Your task to perform on an android device: Open Android settings Image 0: 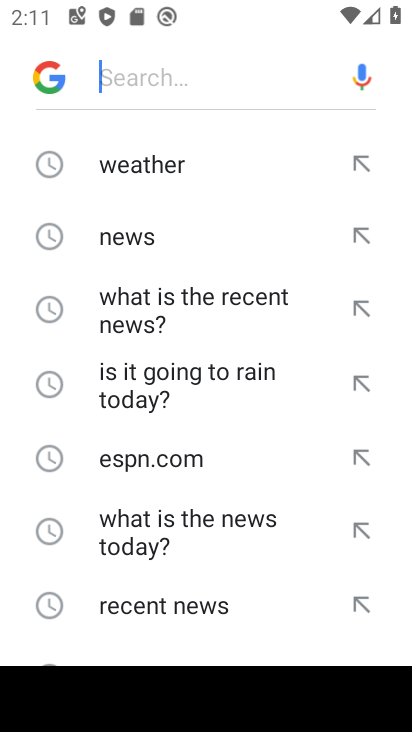
Step 0: press home button
Your task to perform on an android device: Open Android settings Image 1: 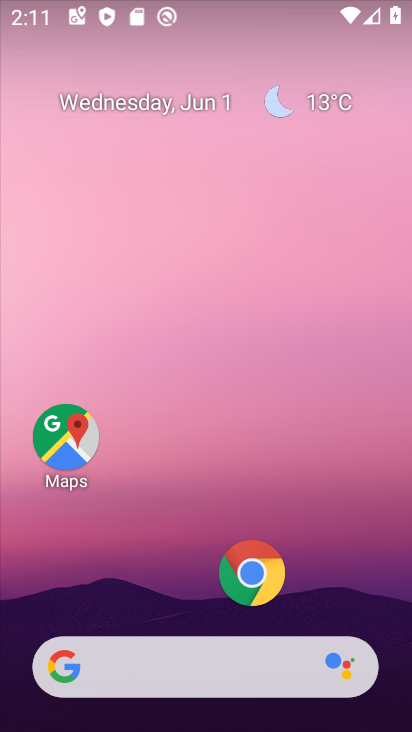
Step 1: drag from (173, 615) to (71, 16)
Your task to perform on an android device: Open Android settings Image 2: 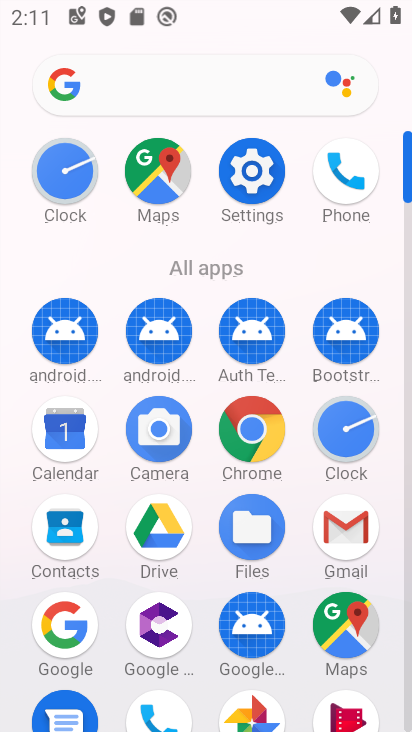
Step 2: click (250, 169)
Your task to perform on an android device: Open Android settings Image 3: 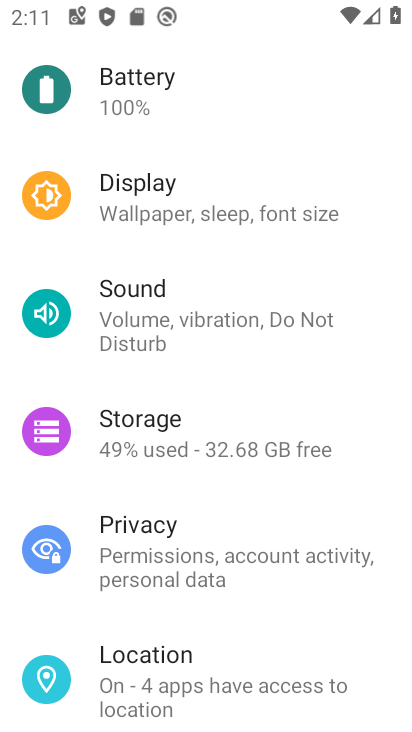
Step 3: task complete